Your task to perform on an android device: Open Google Chrome and click the shortcut for Amazon.com Image 0: 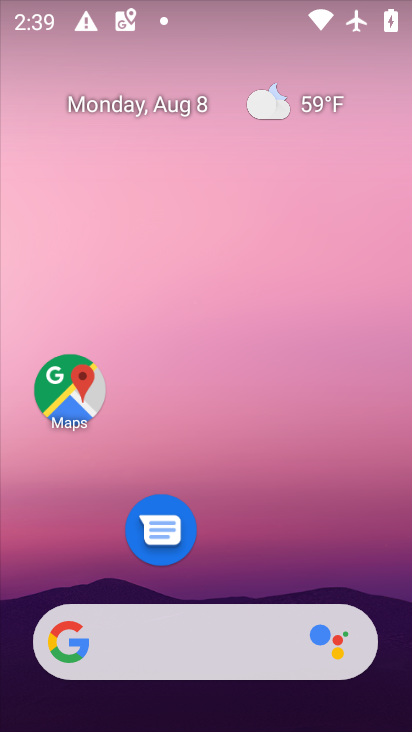
Step 0: drag from (218, 462) to (225, 113)
Your task to perform on an android device: Open Google Chrome and click the shortcut for Amazon.com Image 1: 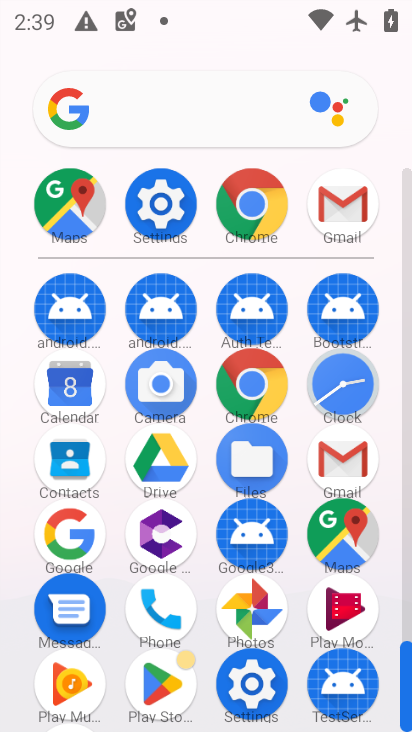
Step 1: click (243, 206)
Your task to perform on an android device: Open Google Chrome and click the shortcut for Amazon.com Image 2: 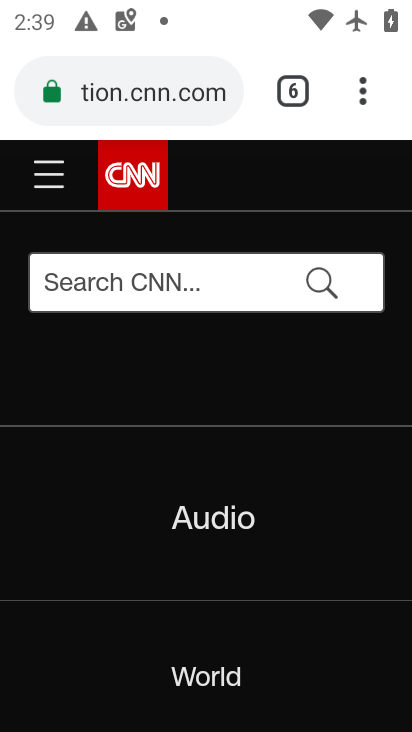
Step 2: drag from (364, 97) to (96, 192)
Your task to perform on an android device: Open Google Chrome and click the shortcut for Amazon.com Image 3: 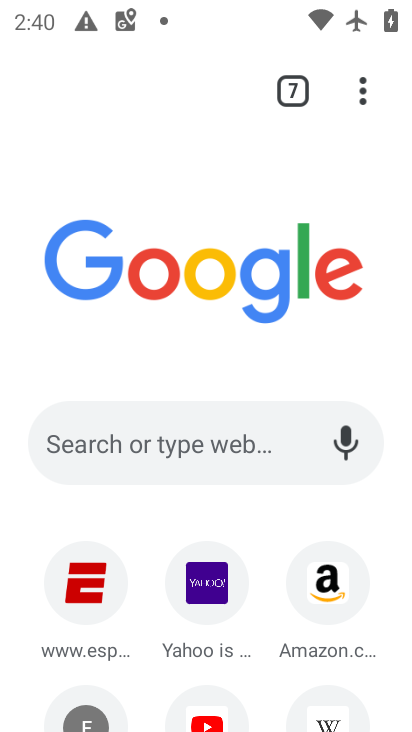
Step 3: click (343, 584)
Your task to perform on an android device: Open Google Chrome and click the shortcut for Amazon.com Image 4: 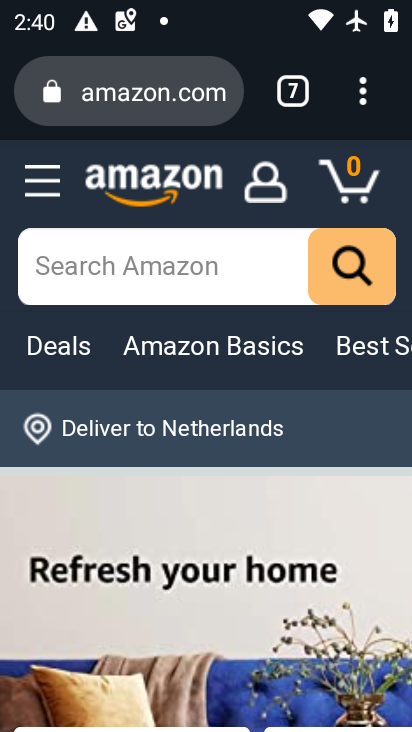
Step 4: task complete